Your task to perform on an android device: add a contact in the contacts app Image 0: 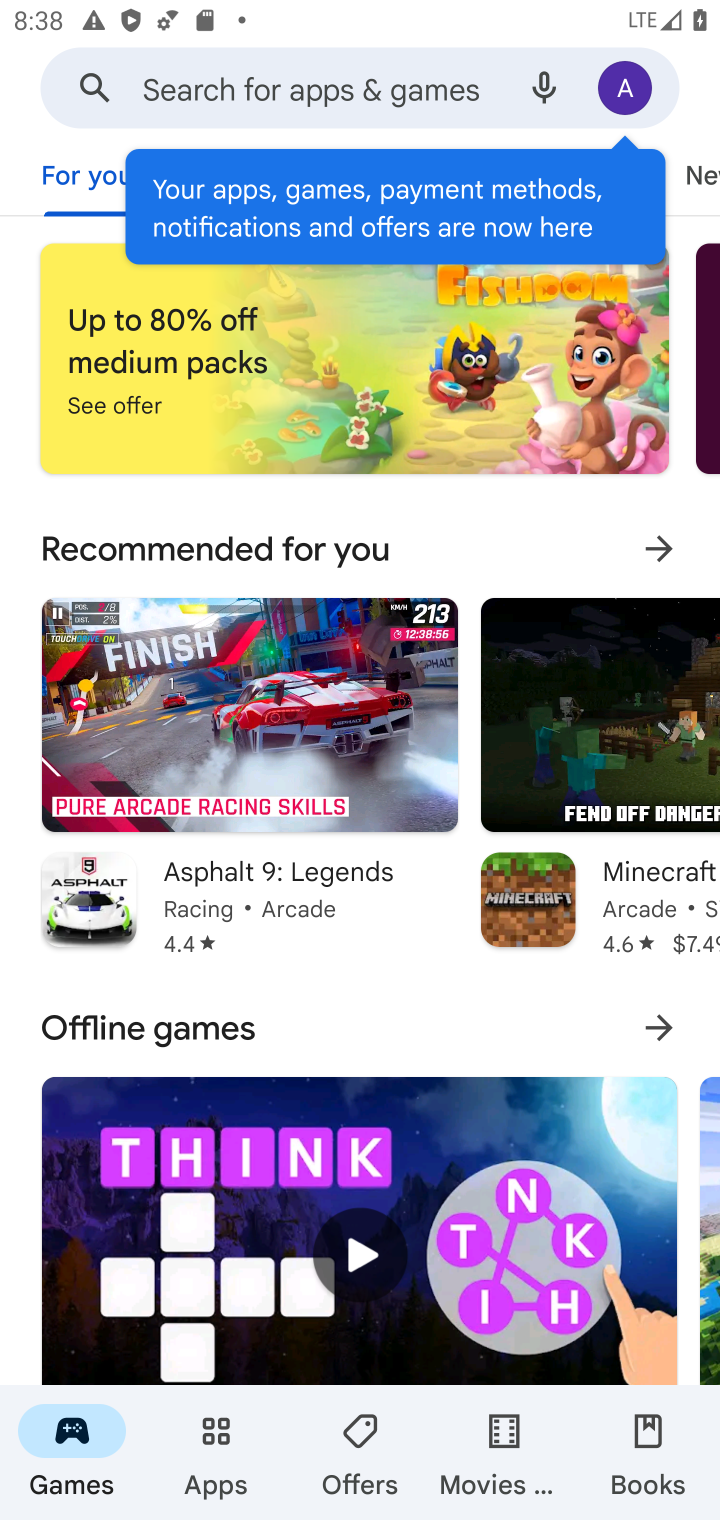
Step 0: press home button
Your task to perform on an android device: add a contact in the contacts app Image 1: 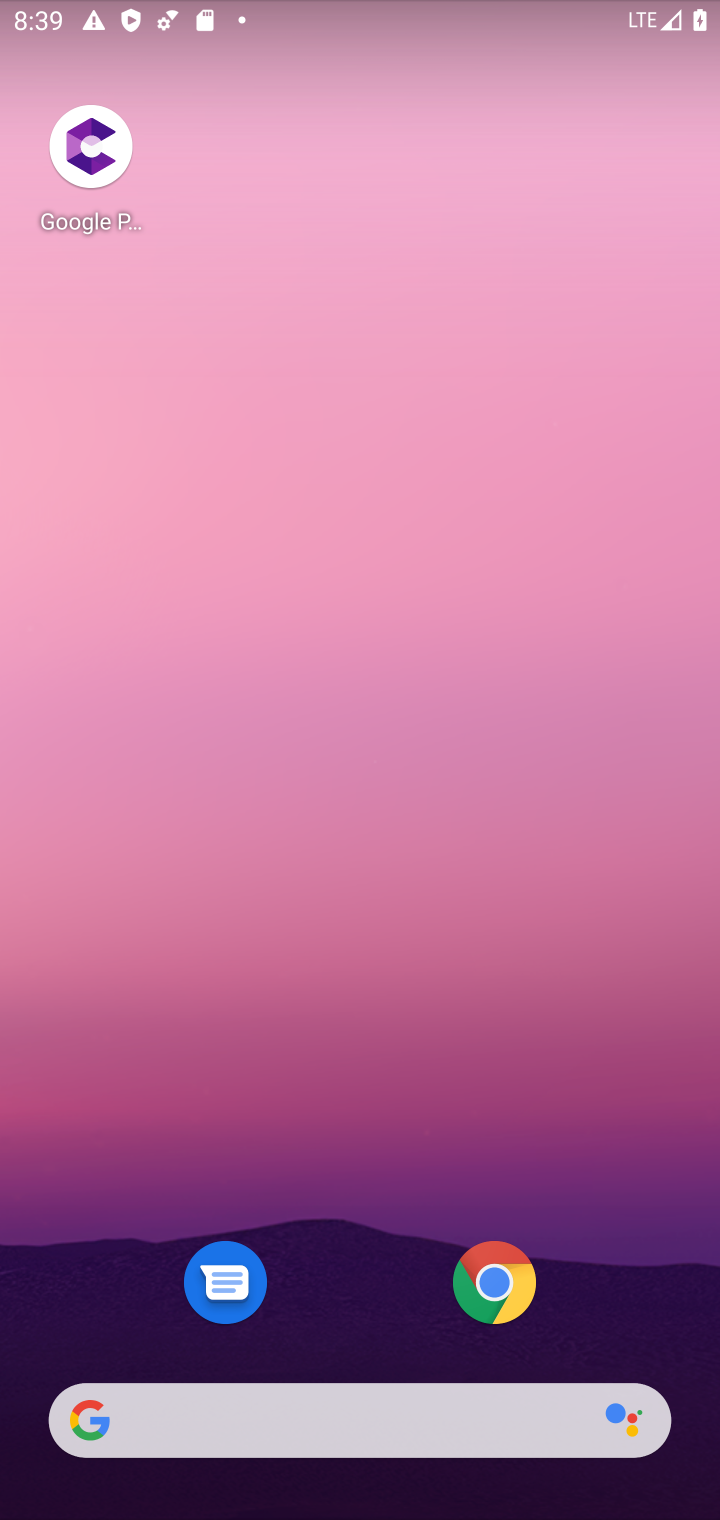
Step 1: drag from (663, 1324) to (580, 399)
Your task to perform on an android device: add a contact in the contacts app Image 2: 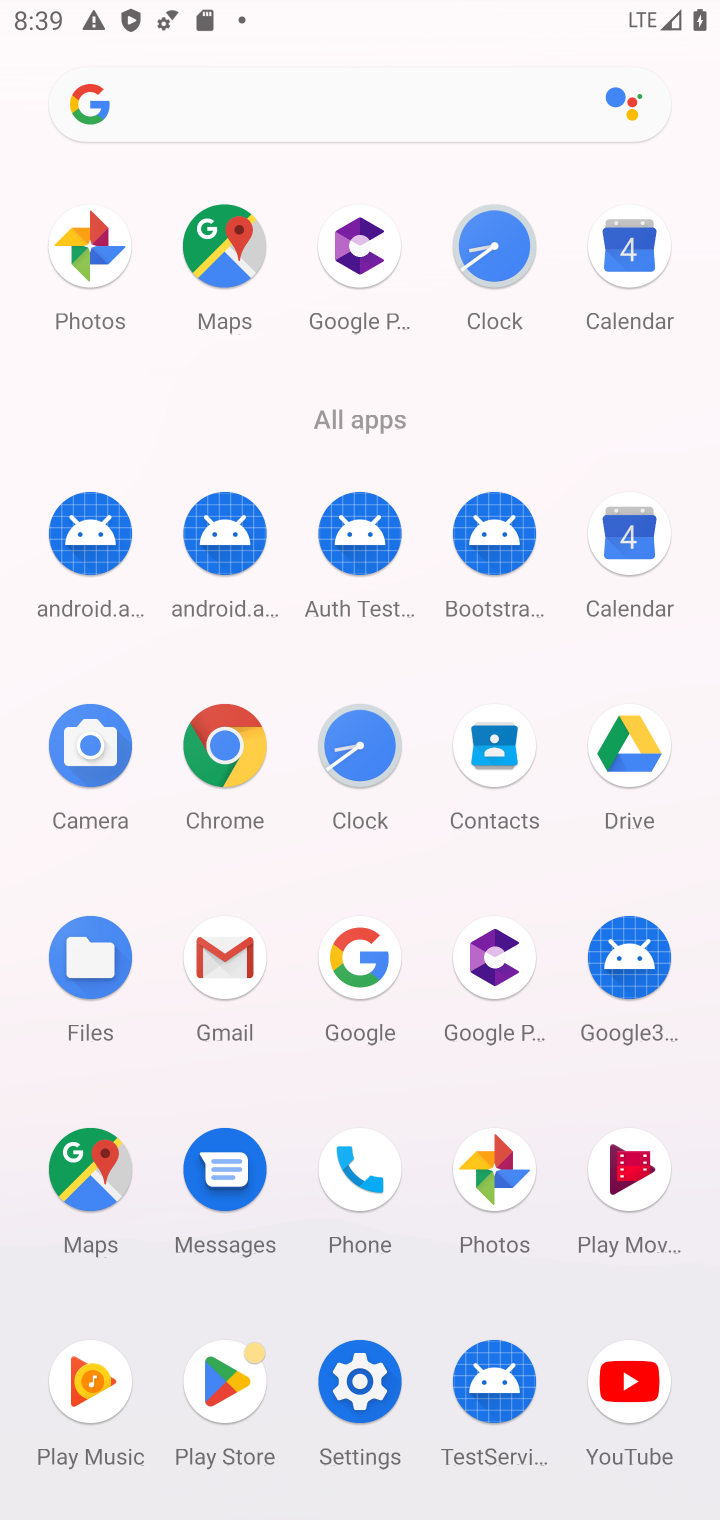
Step 2: click (489, 736)
Your task to perform on an android device: add a contact in the contacts app Image 3: 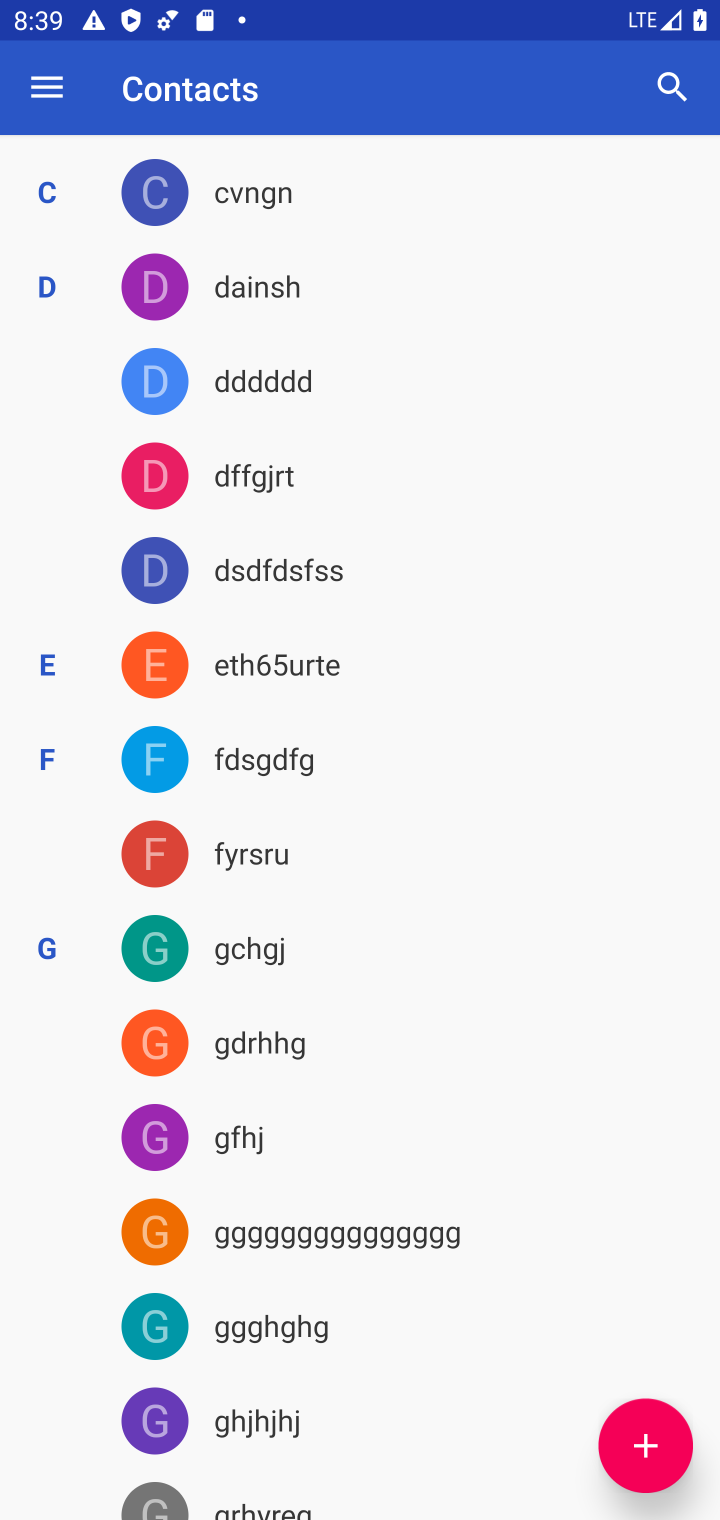
Step 3: click (645, 1464)
Your task to perform on an android device: add a contact in the contacts app Image 4: 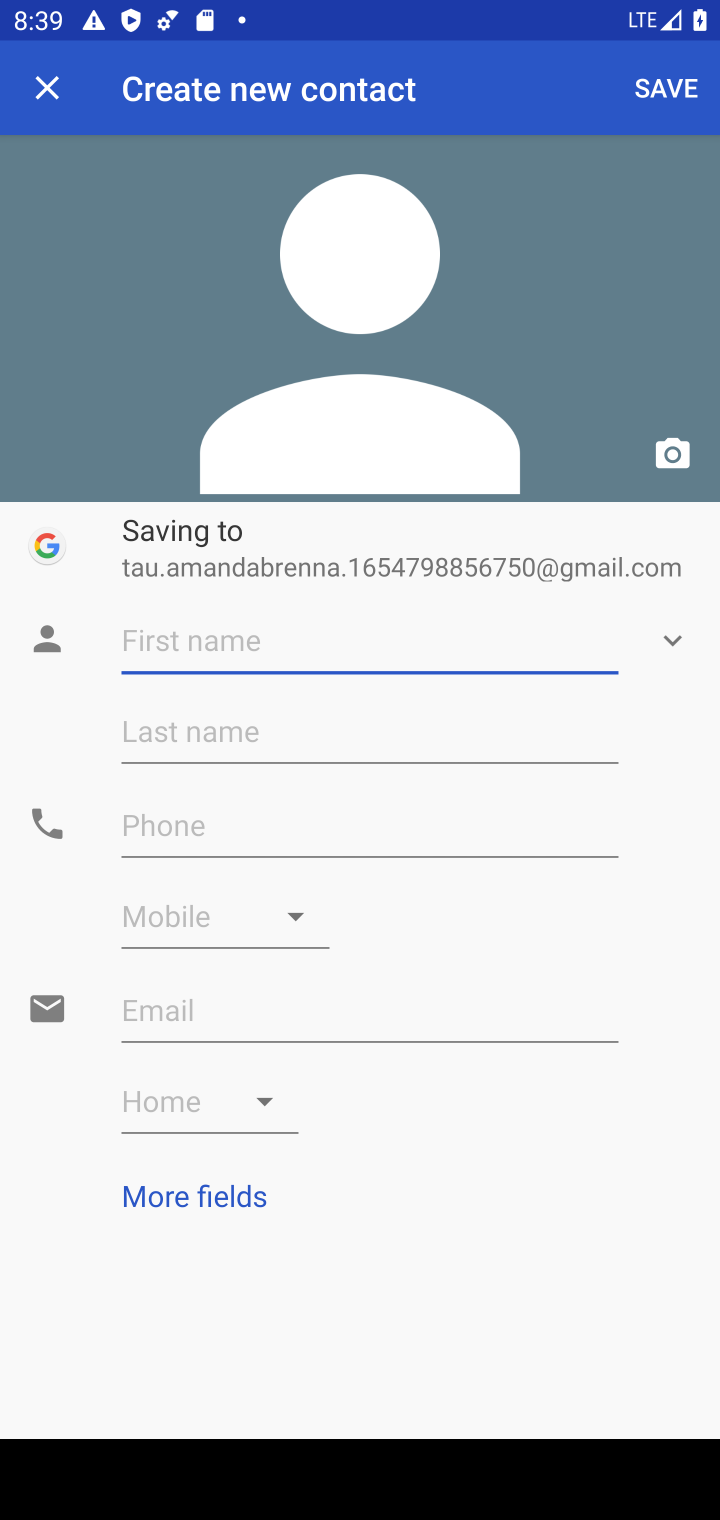
Step 4: type "jj"
Your task to perform on an android device: add a contact in the contacts app Image 5: 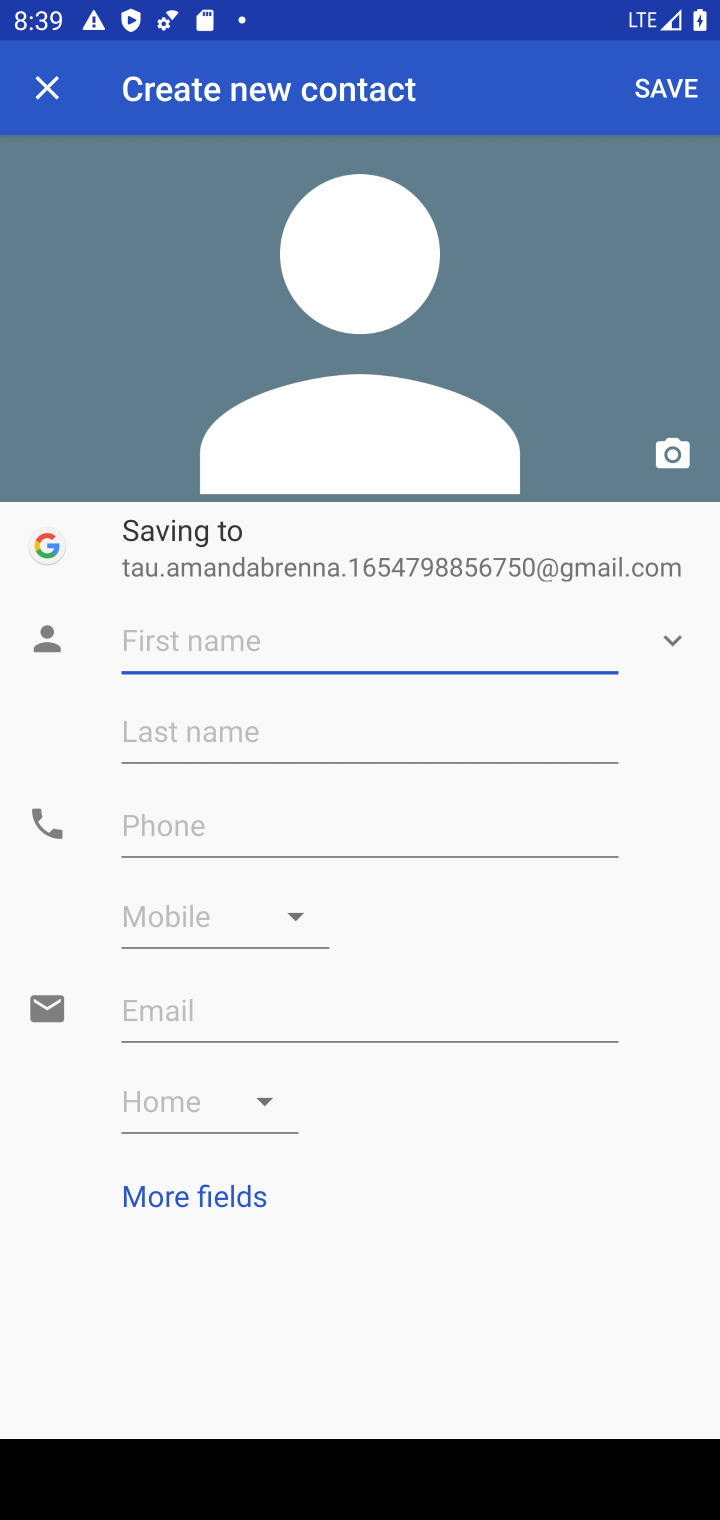
Step 5: click (332, 816)
Your task to perform on an android device: add a contact in the contacts app Image 6: 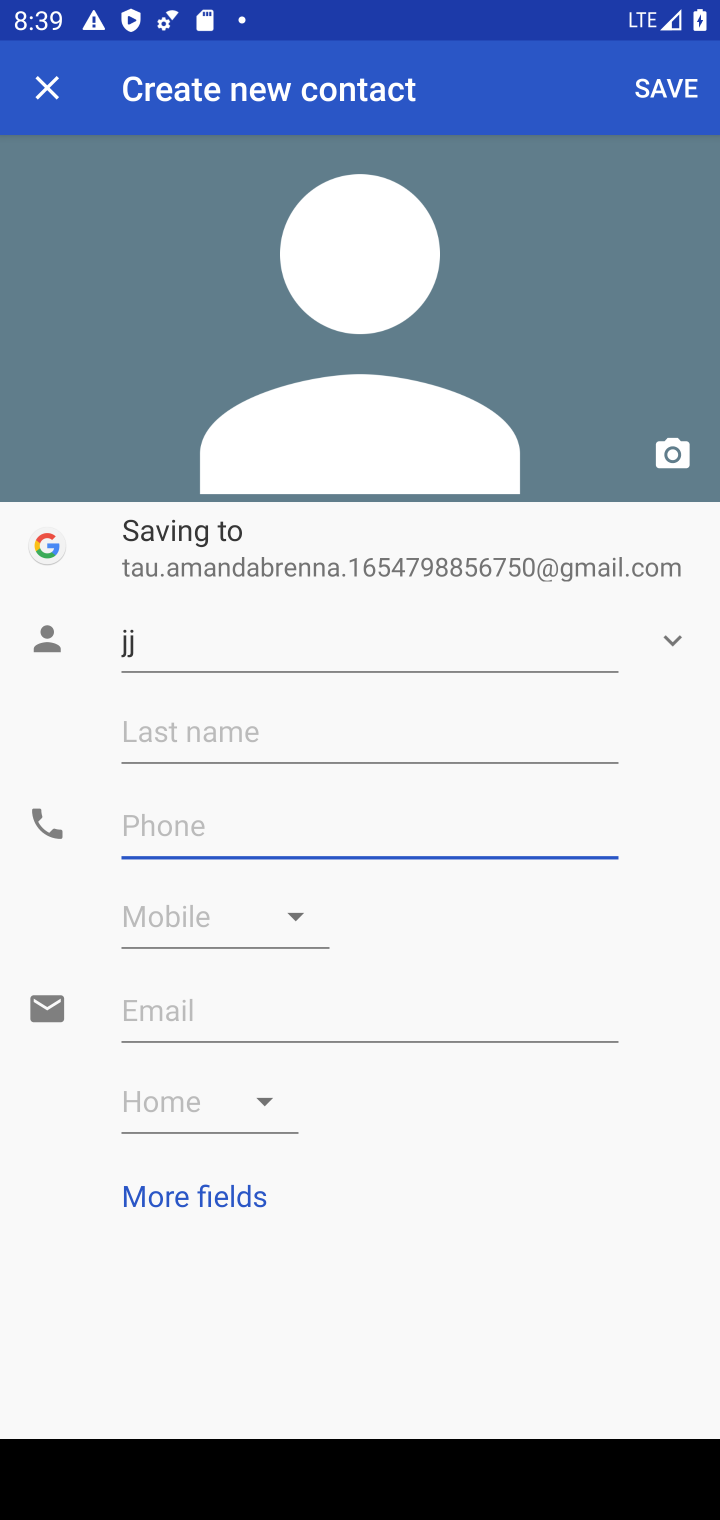
Step 6: type "8998899889"
Your task to perform on an android device: add a contact in the contacts app Image 7: 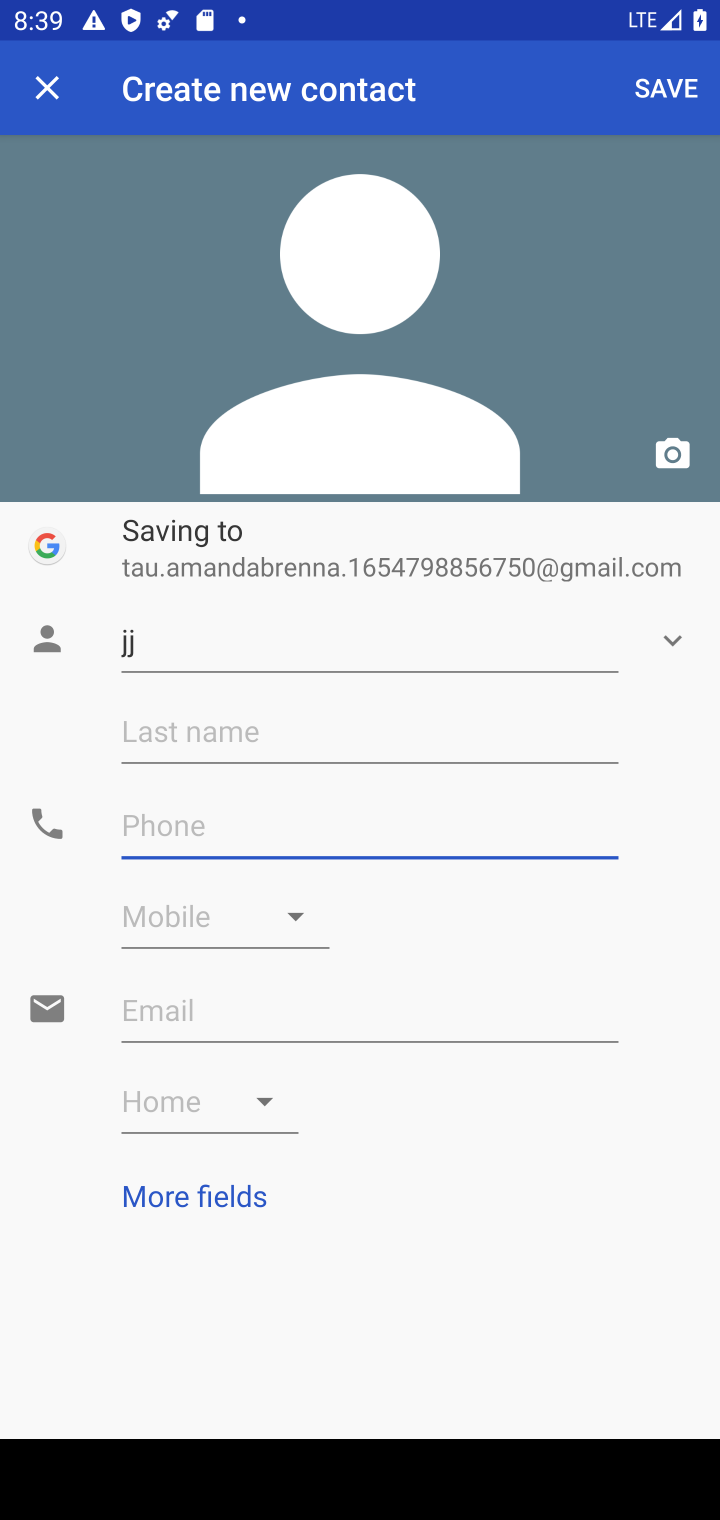
Step 7: click (668, 67)
Your task to perform on an android device: add a contact in the contacts app Image 8: 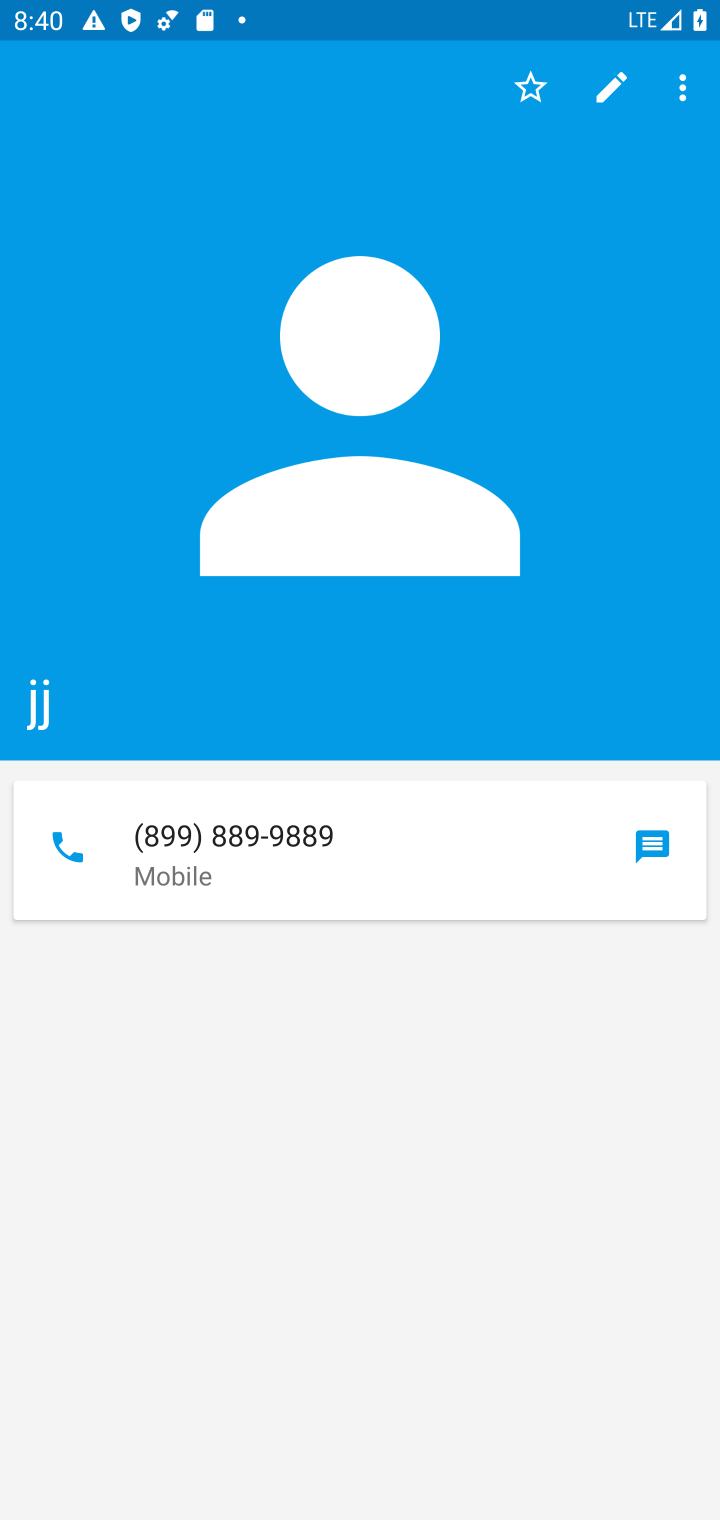
Step 8: task complete